Your task to perform on an android device: manage bookmarks in the chrome app Image 0: 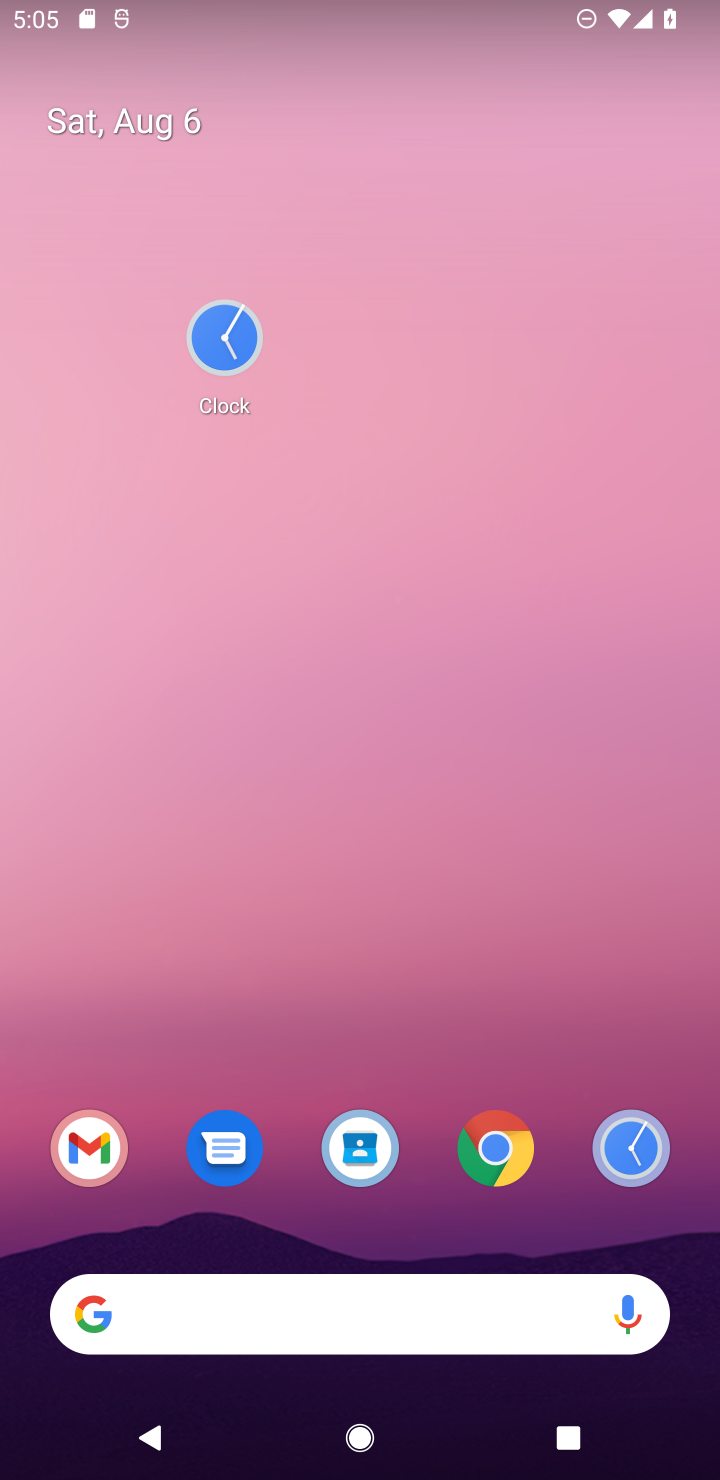
Step 0: drag from (277, 1186) to (332, 540)
Your task to perform on an android device: manage bookmarks in the chrome app Image 1: 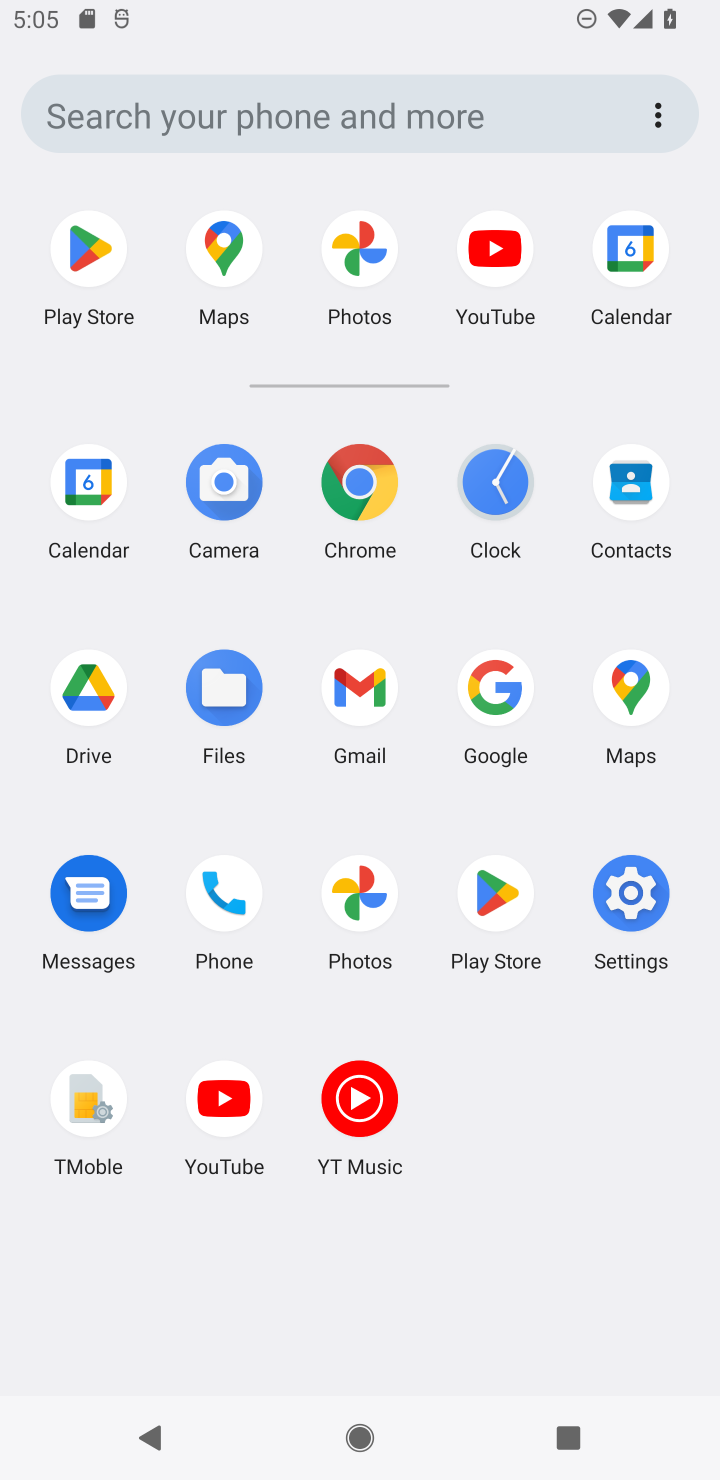
Step 1: drag from (360, 1130) to (427, 645)
Your task to perform on an android device: manage bookmarks in the chrome app Image 2: 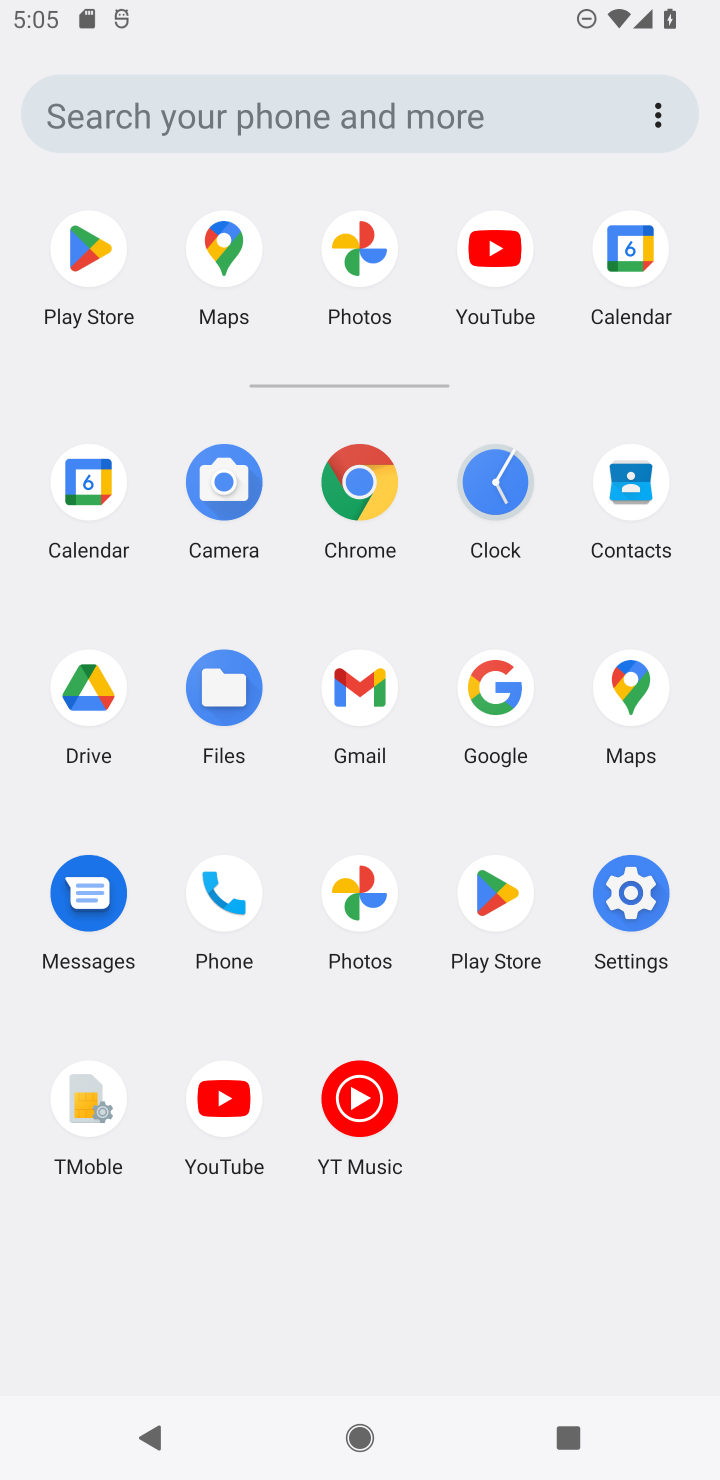
Step 2: click (356, 469)
Your task to perform on an android device: manage bookmarks in the chrome app Image 3: 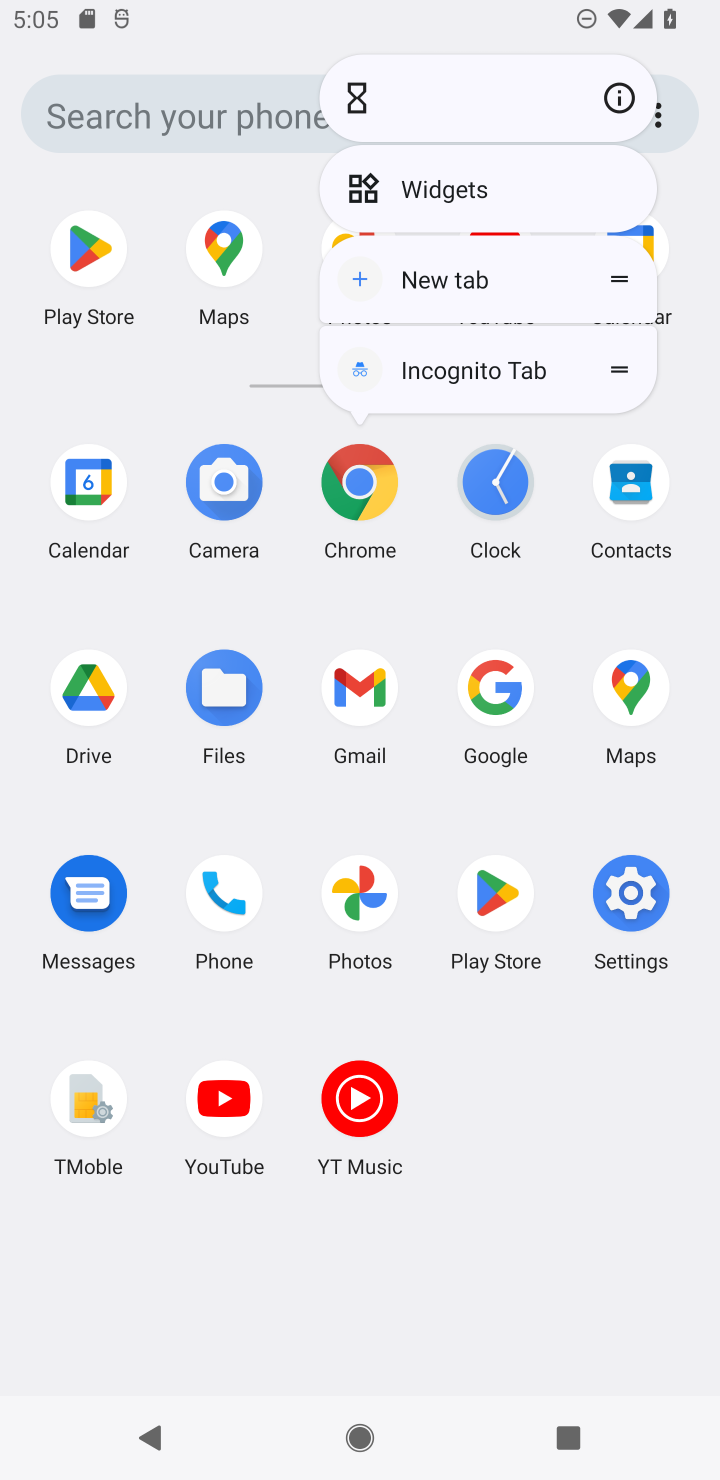
Step 3: click (617, 107)
Your task to perform on an android device: manage bookmarks in the chrome app Image 4: 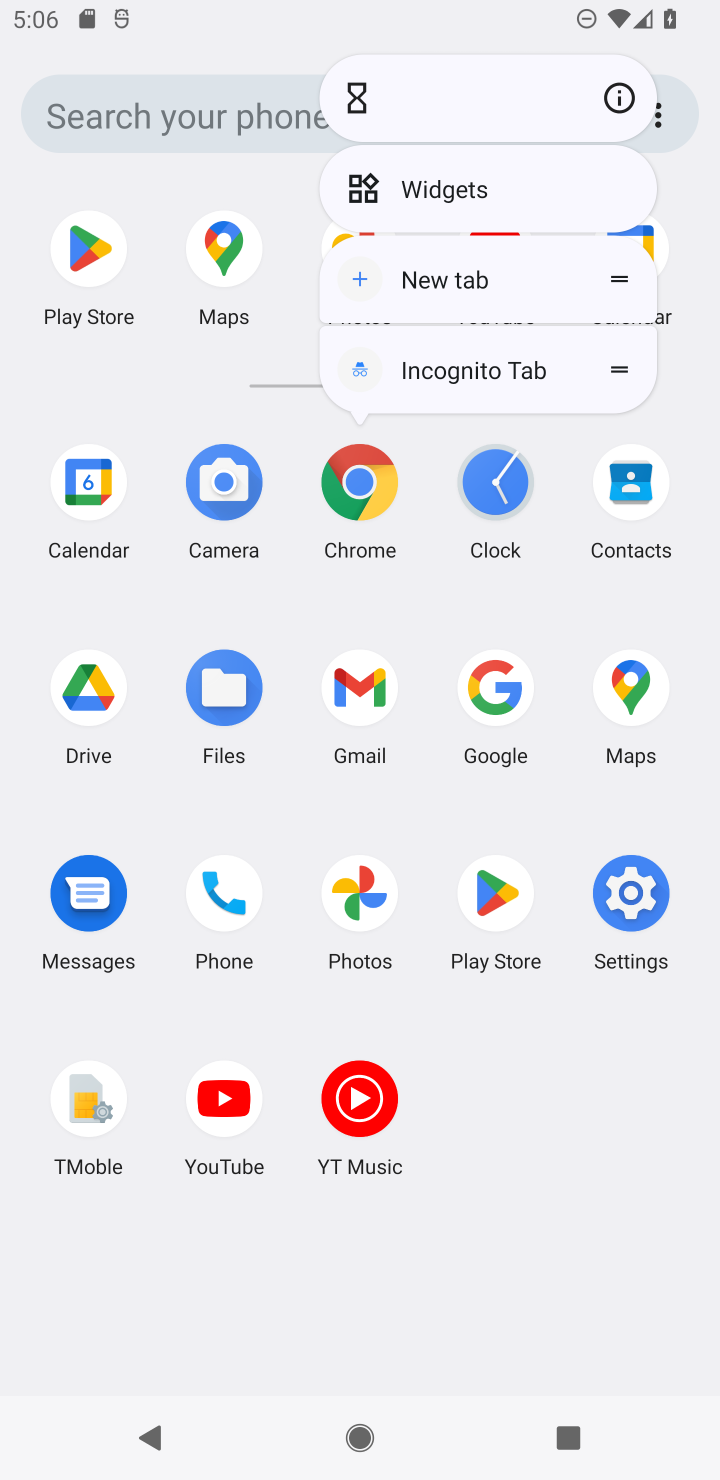
Step 4: click (608, 66)
Your task to perform on an android device: manage bookmarks in the chrome app Image 5: 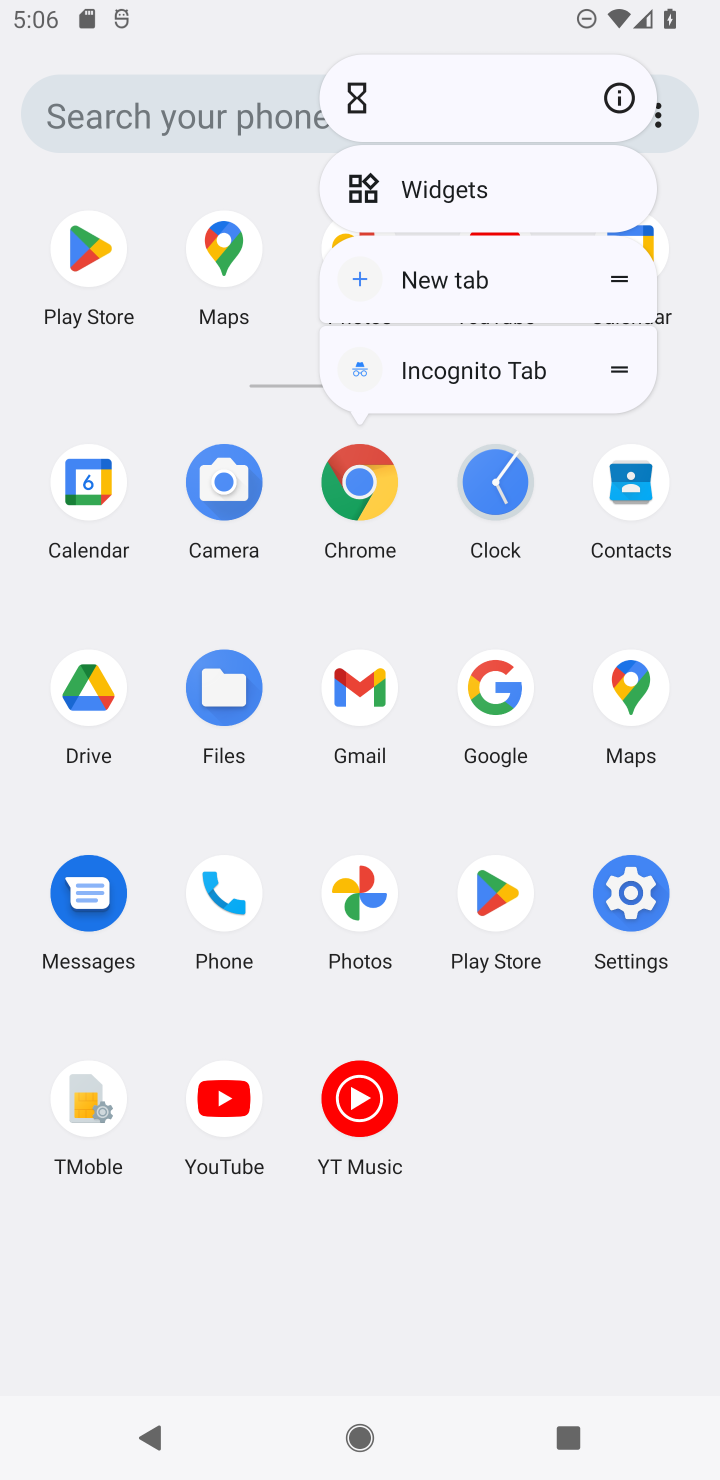
Step 5: click (614, 80)
Your task to perform on an android device: manage bookmarks in the chrome app Image 6: 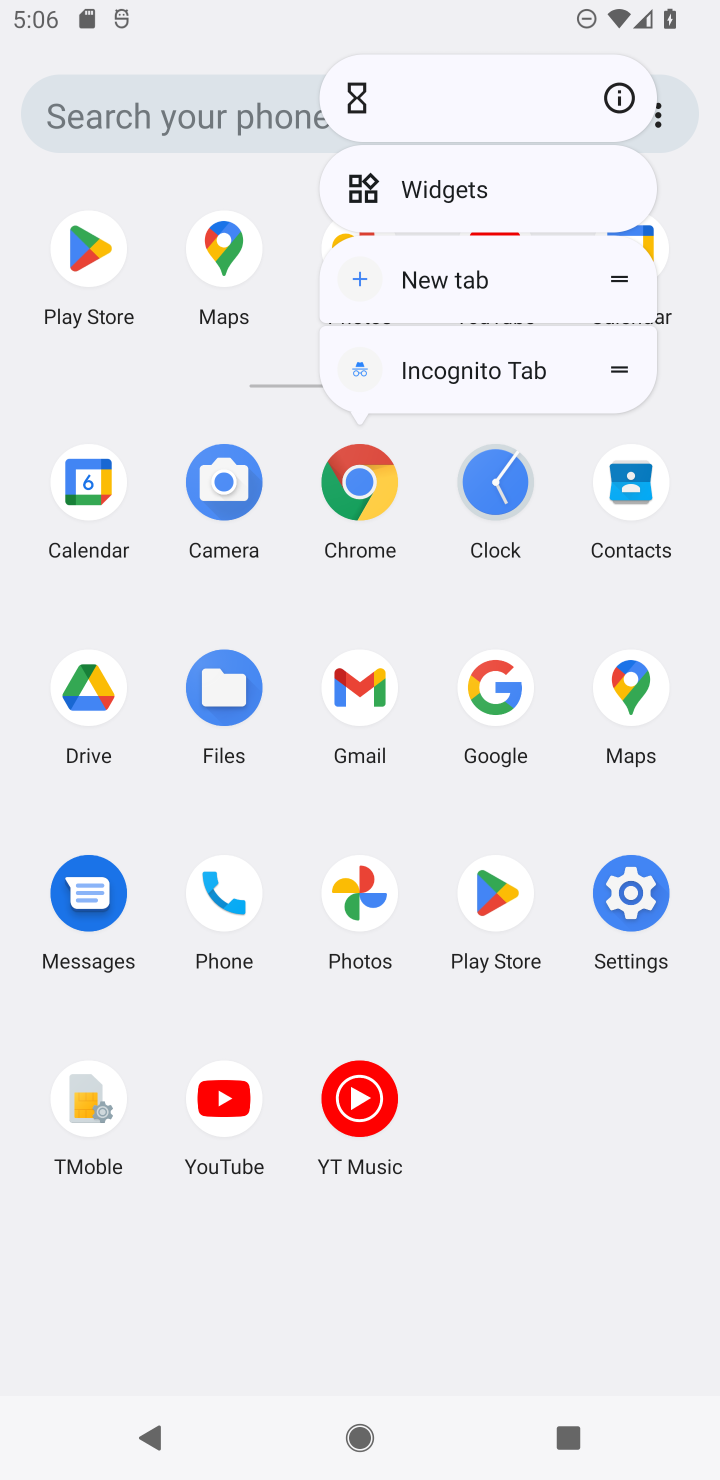
Step 6: click (383, 456)
Your task to perform on an android device: manage bookmarks in the chrome app Image 7: 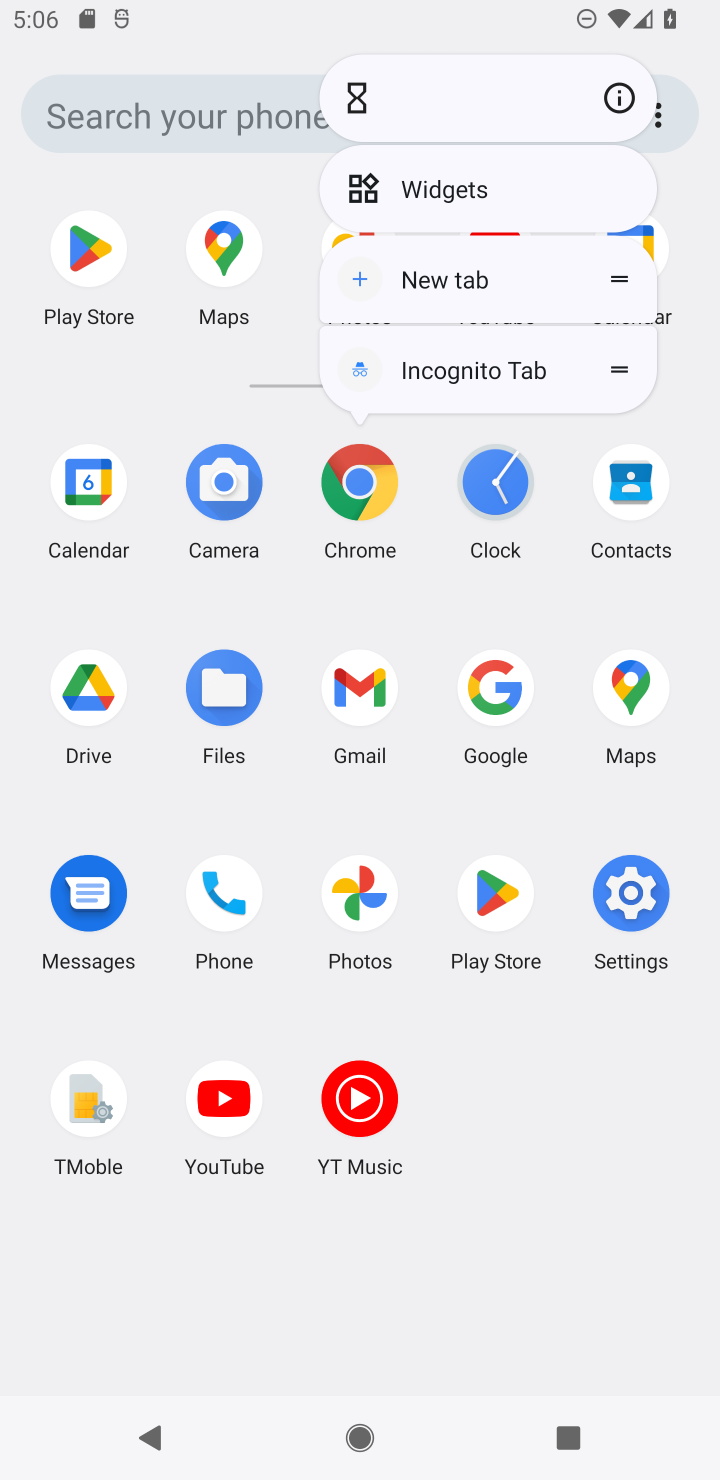
Step 7: click (374, 456)
Your task to perform on an android device: manage bookmarks in the chrome app Image 8: 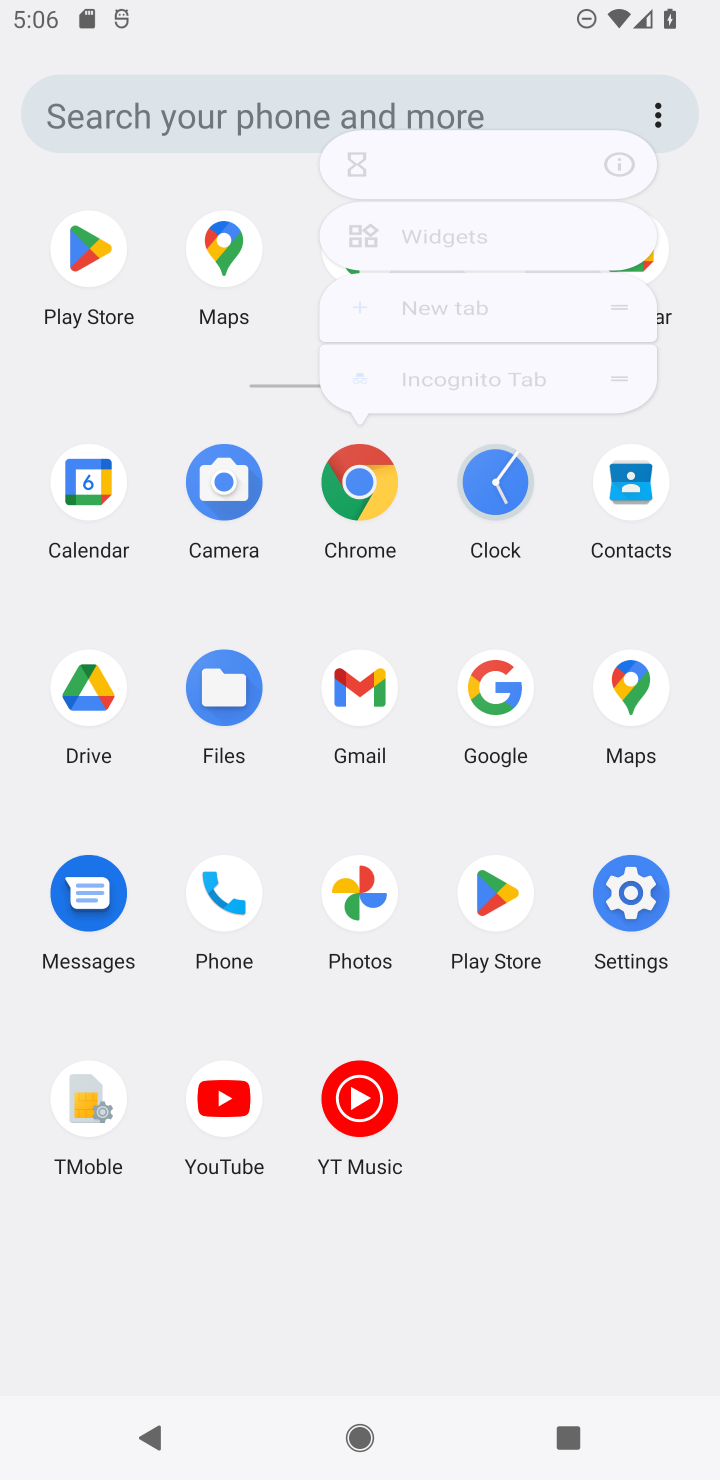
Step 8: click (374, 456)
Your task to perform on an android device: manage bookmarks in the chrome app Image 9: 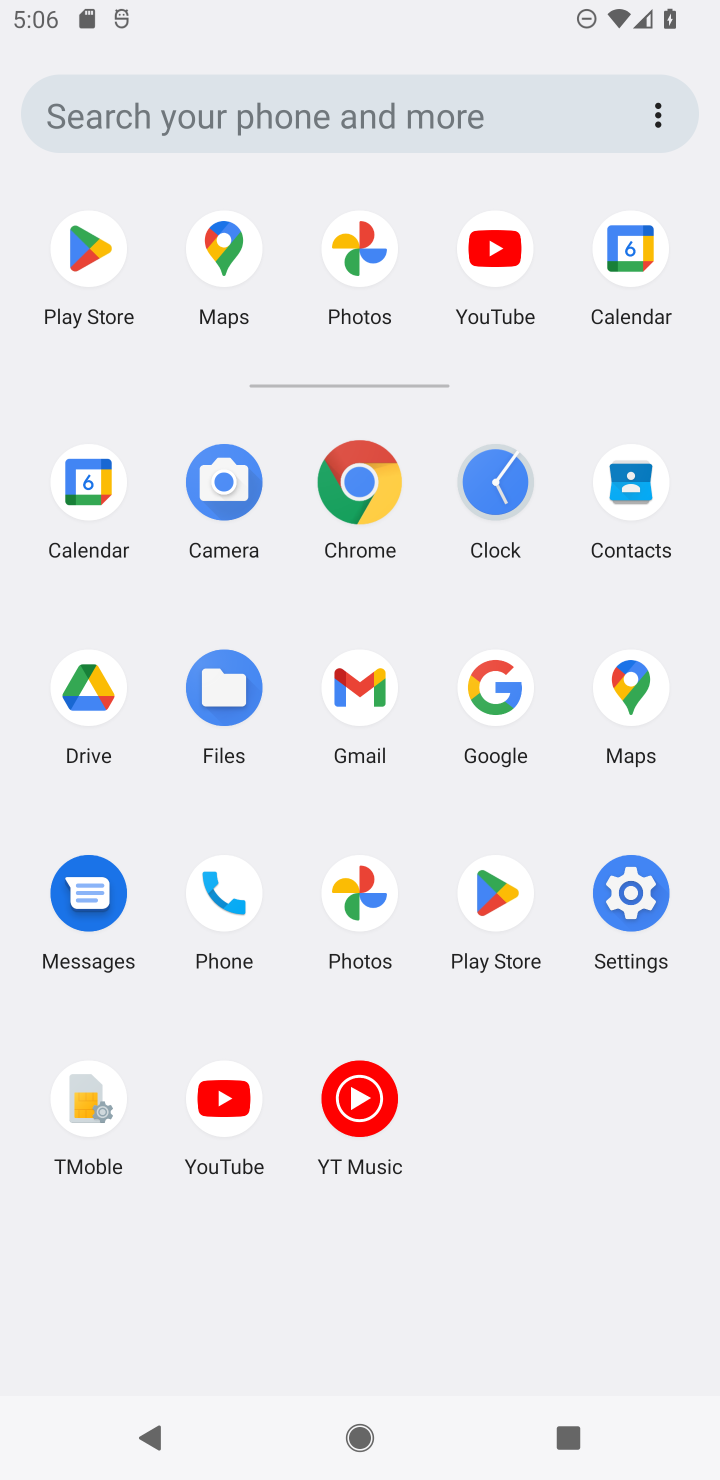
Step 9: click (362, 492)
Your task to perform on an android device: manage bookmarks in the chrome app Image 10: 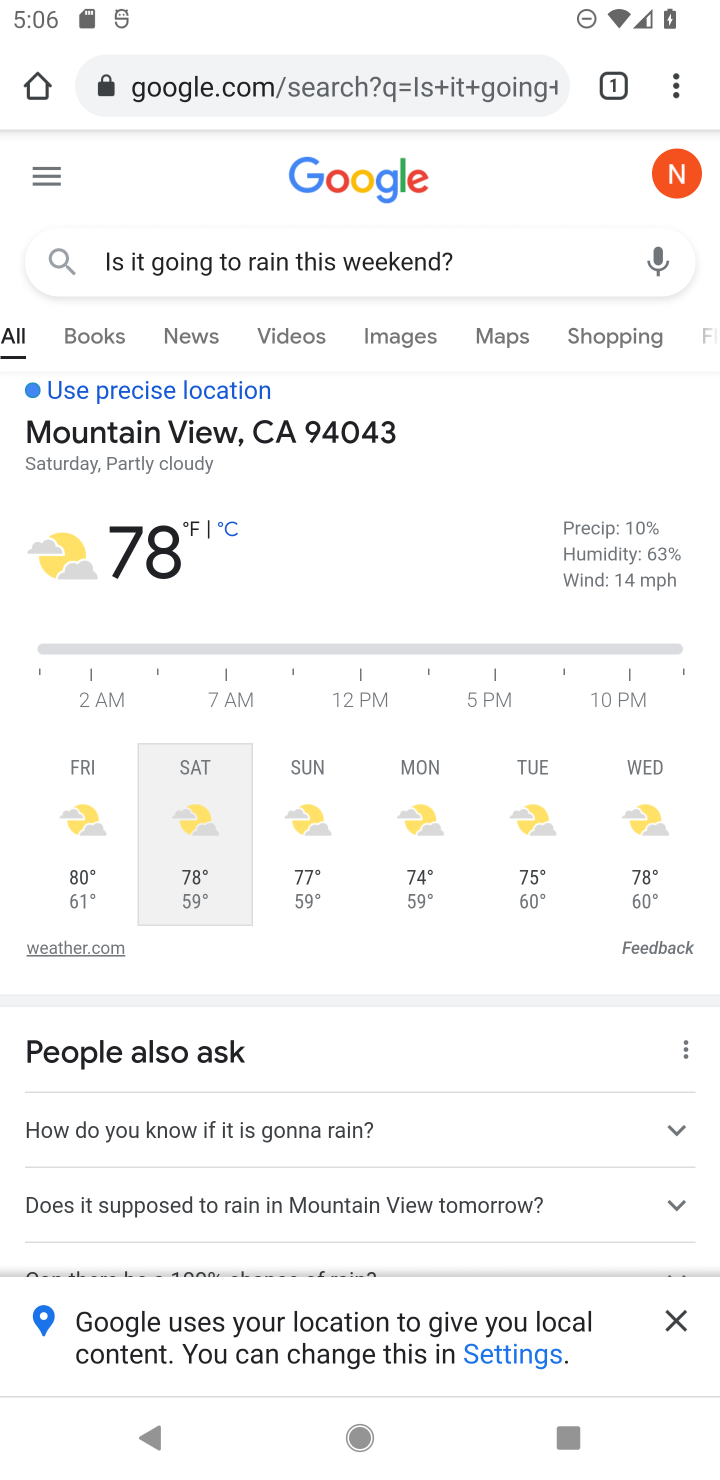
Step 10: drag from (665, 76) to (459, 595)
Your task to perform on an android device: manage bookmarks in the chrome app Image 11: 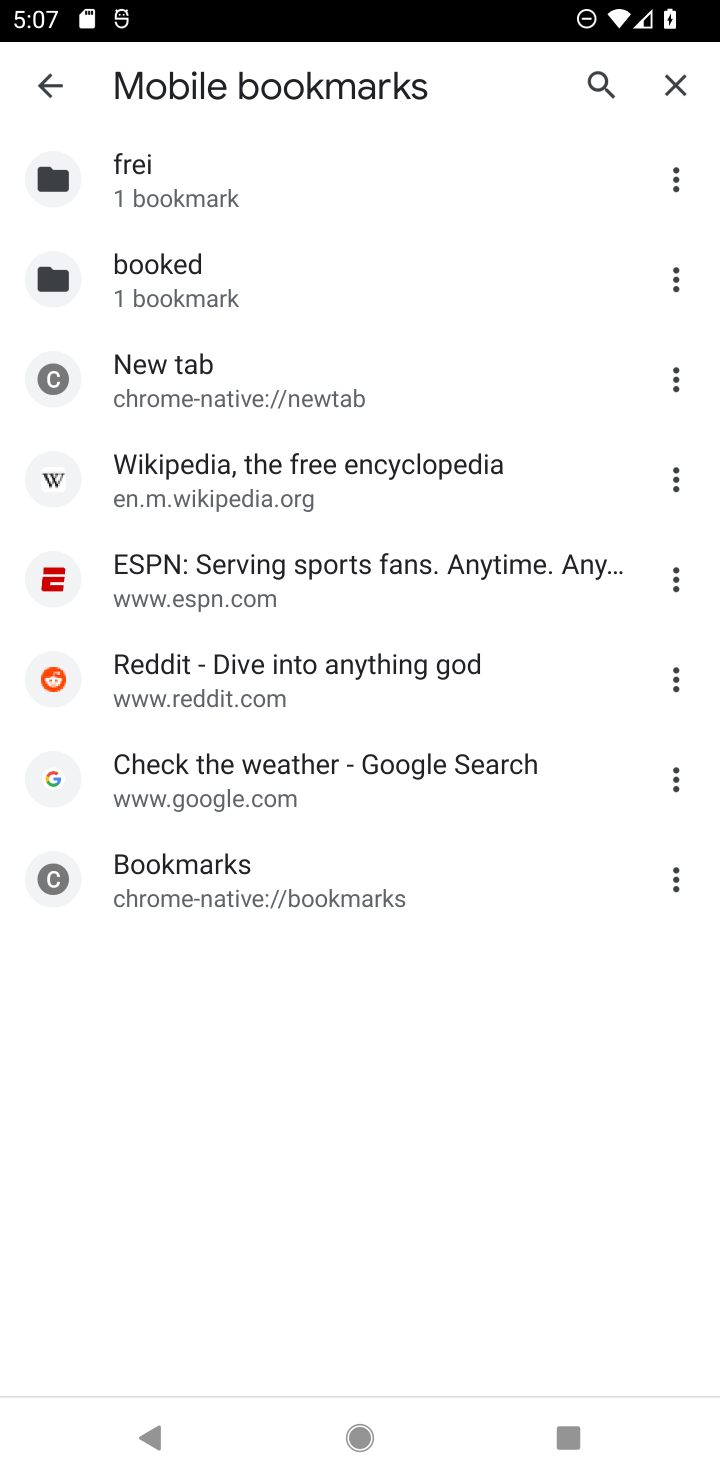
Step 11: drag from (467, 510) to (487, 386)
Your task to perform on an android device: manage bookmarks in the chrome app Image 12: 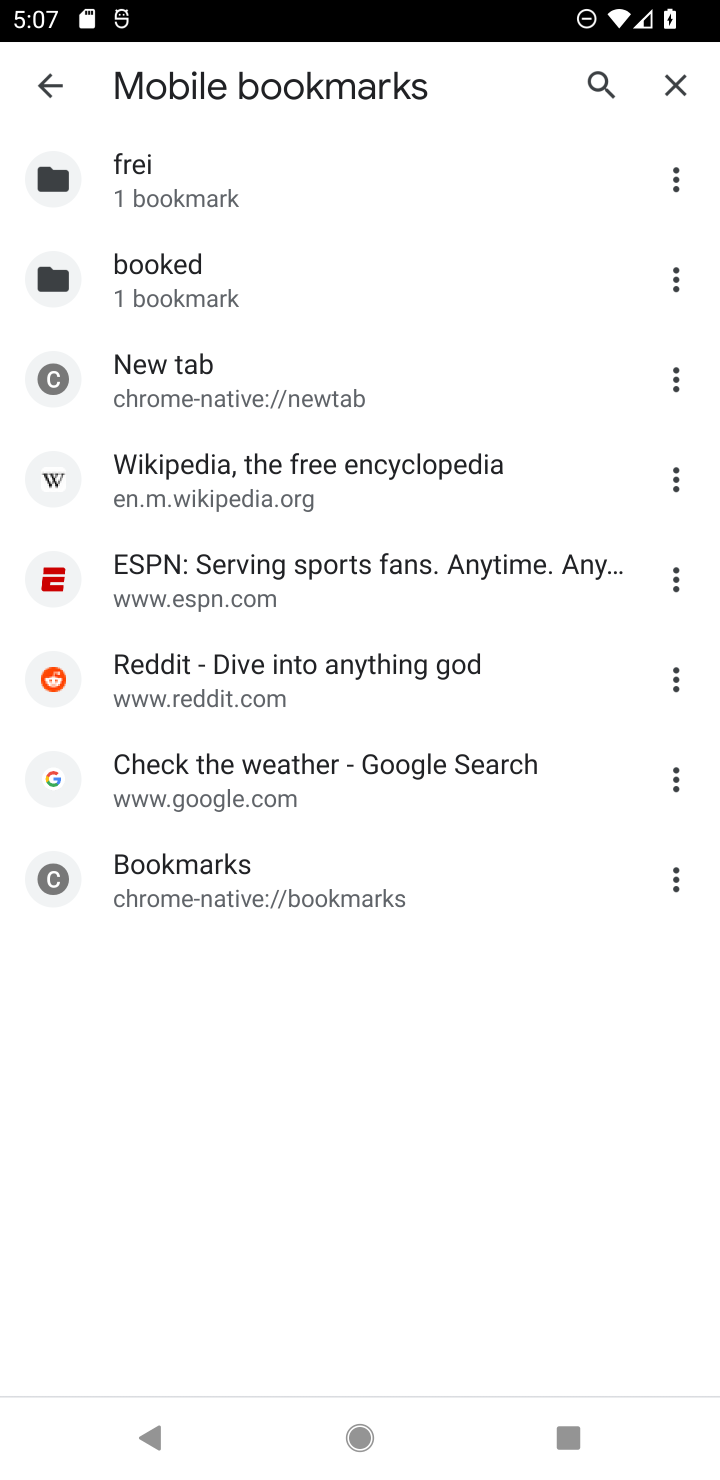
Step 12: click (413, 503)
Your task to perform on an android device: manage bookmarks in the chrome app Image 13: 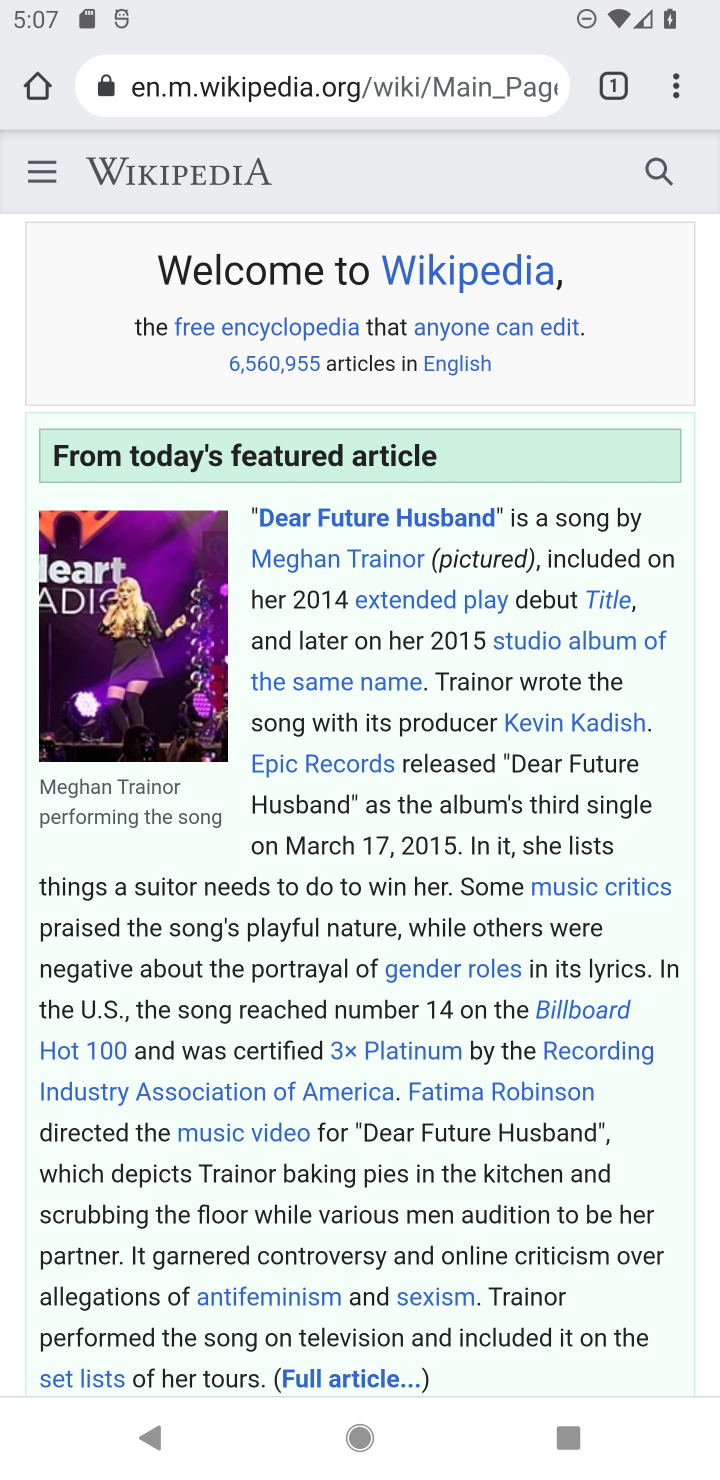
Step 13: task complete